Your task to perform on an android device: check the backup settings in the google photos Image 0: 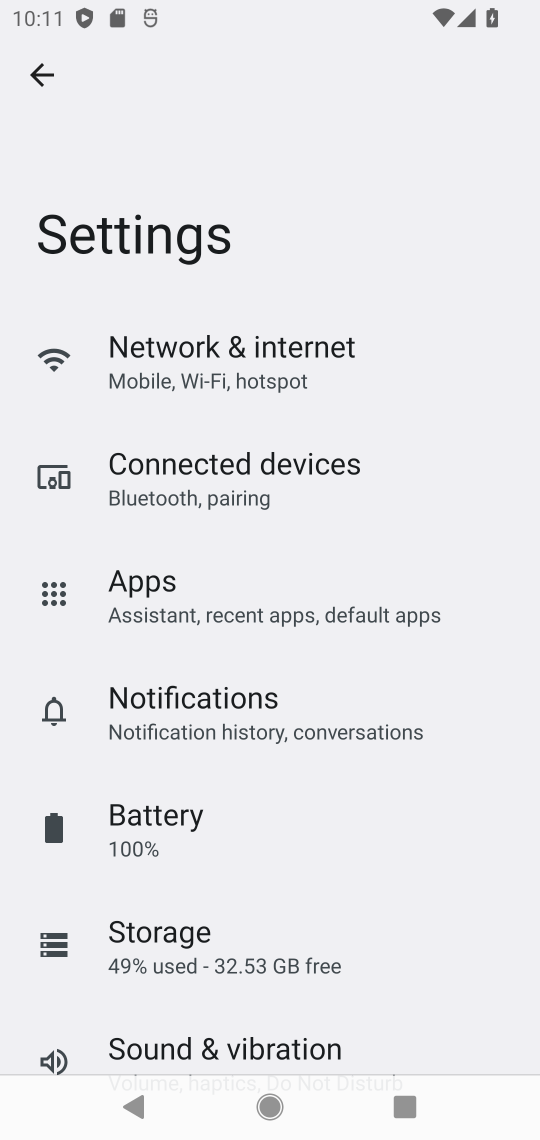
Step 0: press back button
Your task to perform on an android device: check the backup settings in the google photos Image 1: 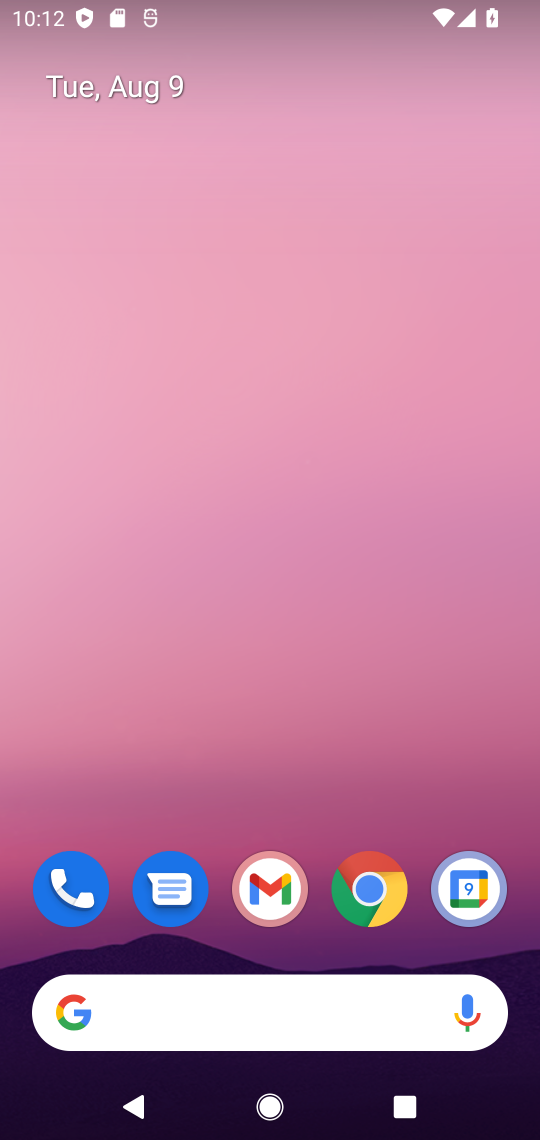
Step 1: drag from (322, 988) to (313, 852)
Your task to perform on an android device: check the backup settings in the google photos Image 2: 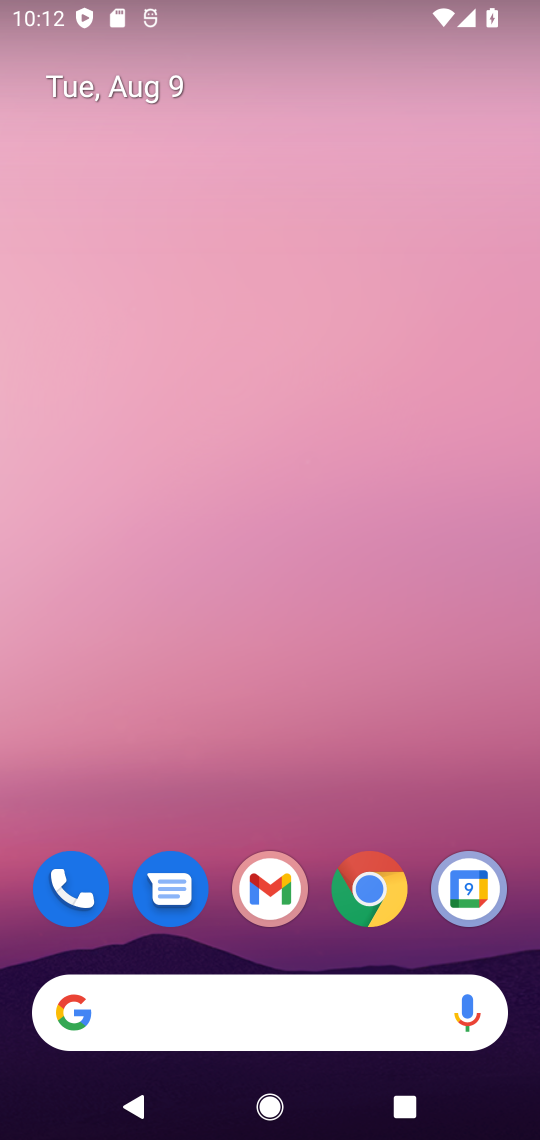
Step 2: drag from (219, 934) to (403, 30)
Your task to perform on an android device: check the backup settings in the google photos Image 3: 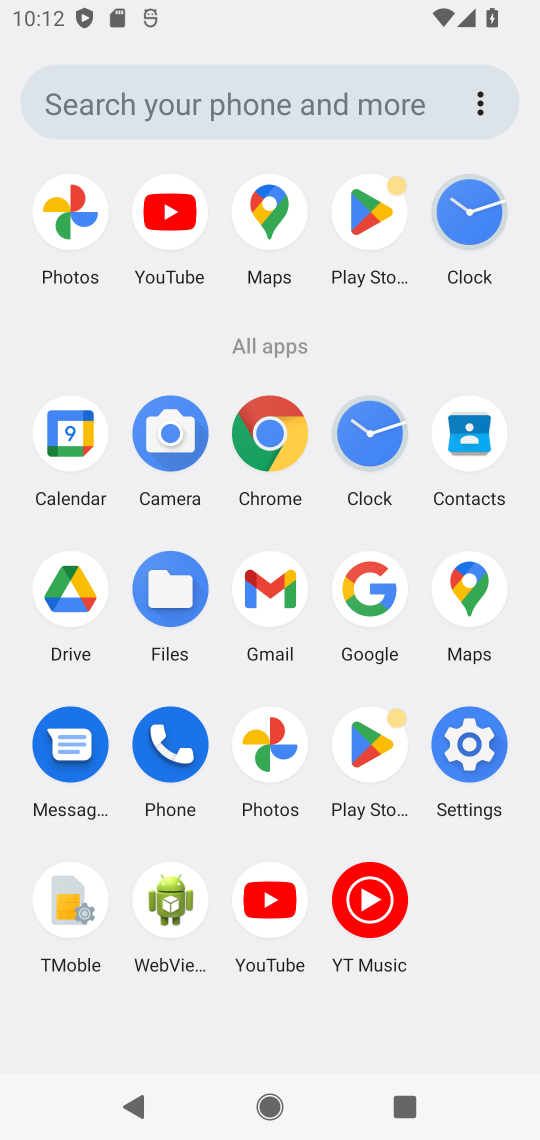
Step 3: click (292, 731)
Your task to perform on an android device: check the backup settings in the google photos Image 4: 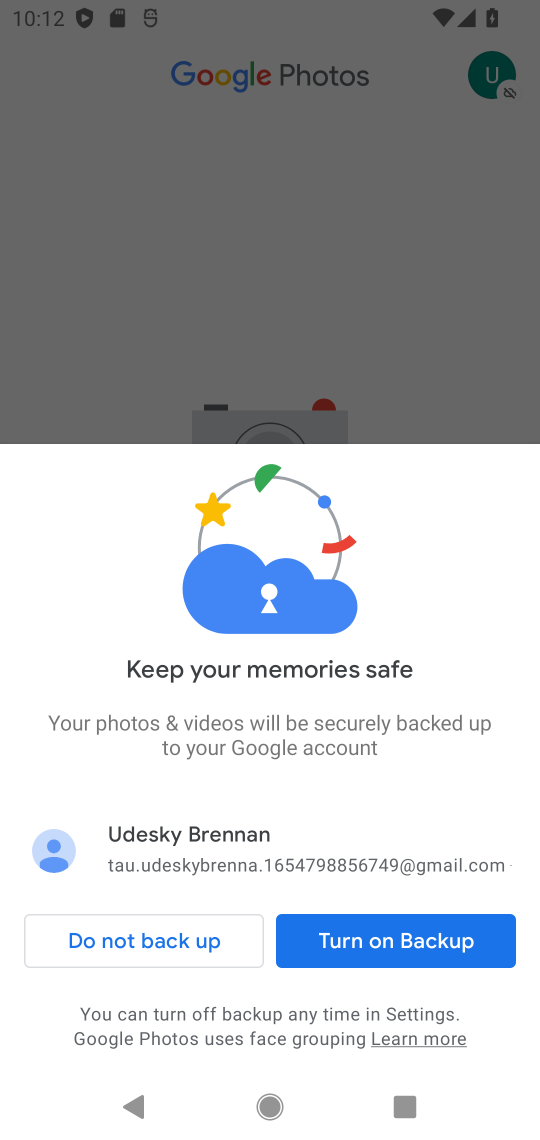
Step 4: click (143, 931)
Your task to perform on an android device: check the backup settings in the google photos Image 5: 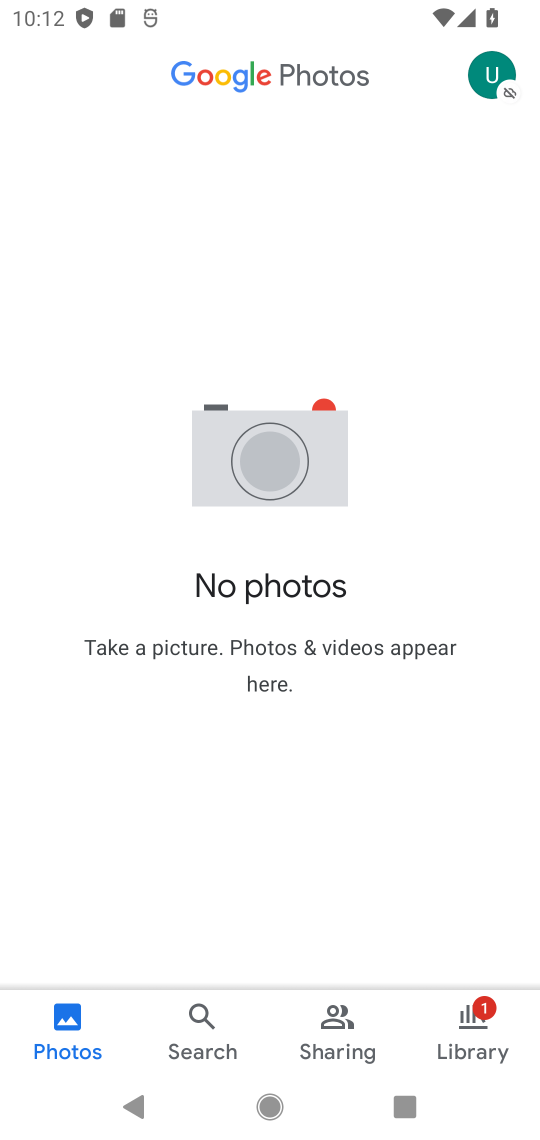
Step 5: click (486, 79)
Your task to perform on an android device: check the backup settings in the google photos Image 6: 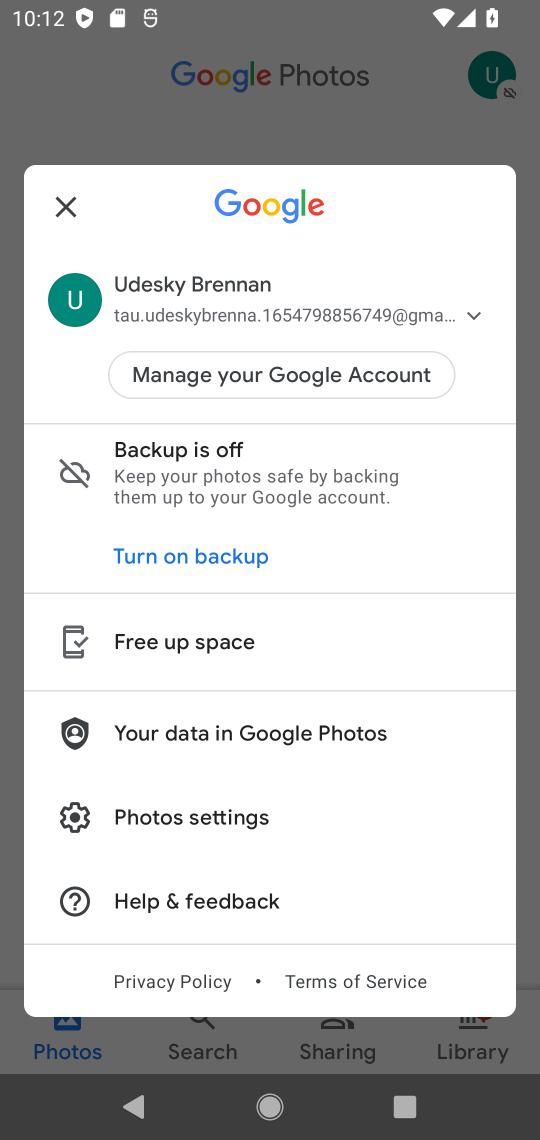
Step 6: click (169, 821)
Your task to perform on an android device: check the backup settings in the google photos Image 7: 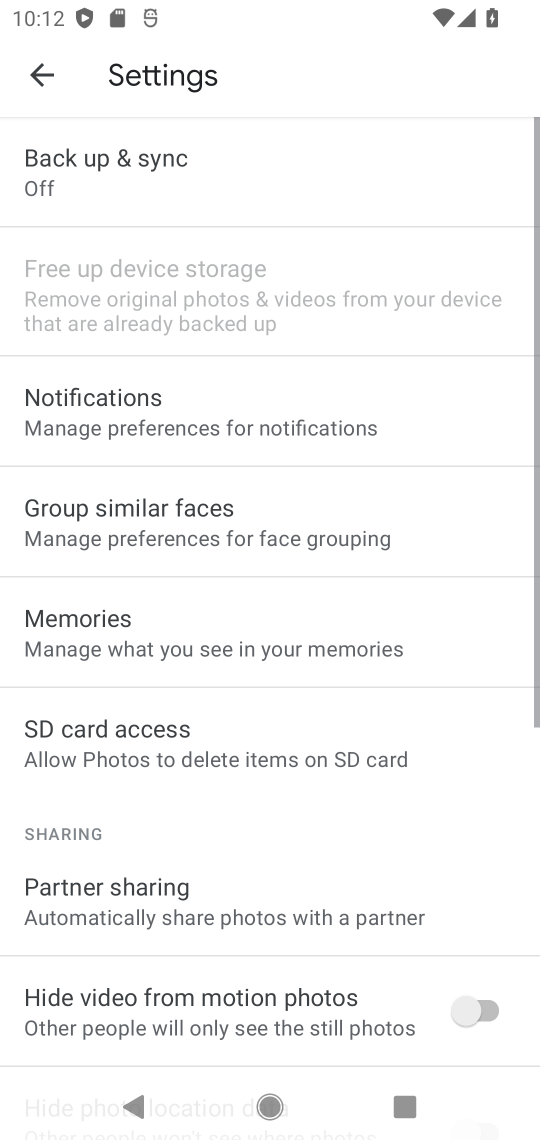
Step 7: click (145, 176)
Your task to perform on an android device: check the backup settings in the google photos Image 8: 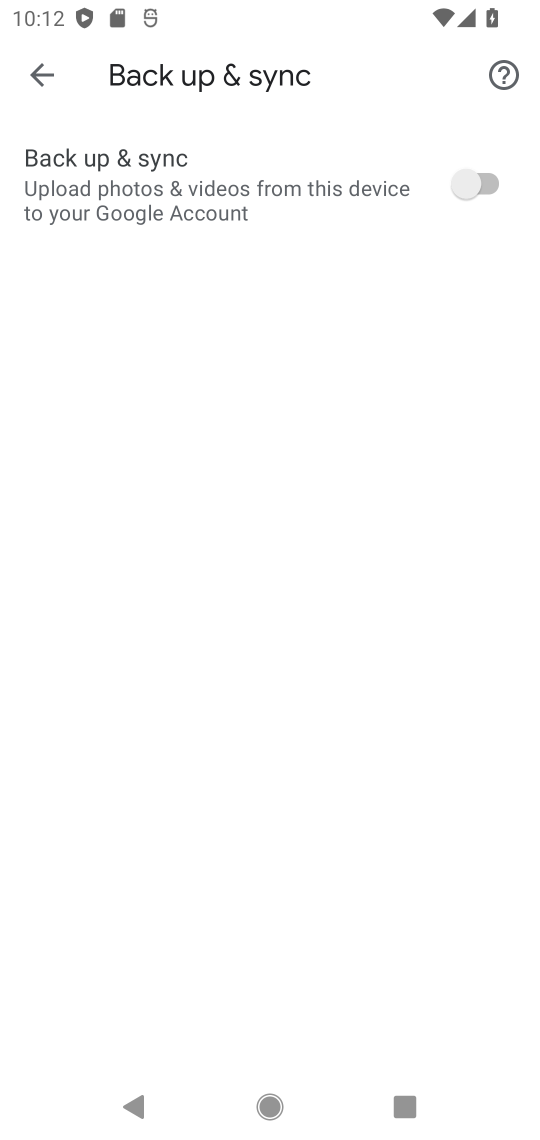
Step 8: task complete